Your task to perform on an android device: turn off location Image 0: 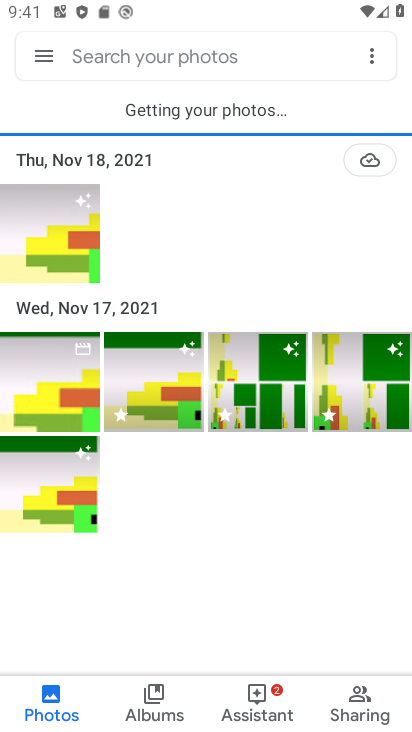
Step 0: press home button
Your task to perform on an android device: turn off location Image 1: 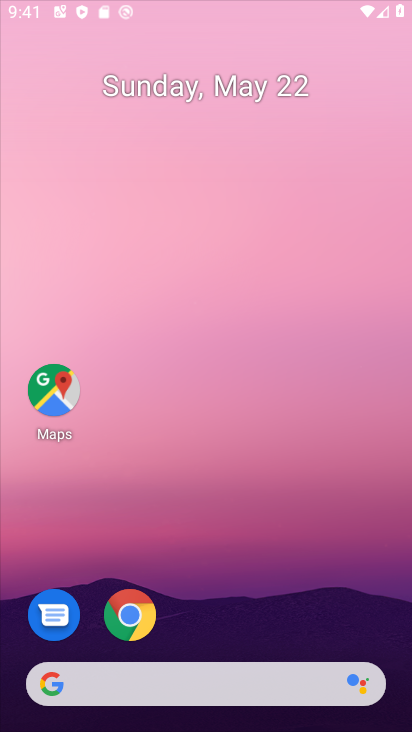
Step 1: drag from (260, 383) to (268, 50)
Your task to perform on an android device: turn off location Image 2: 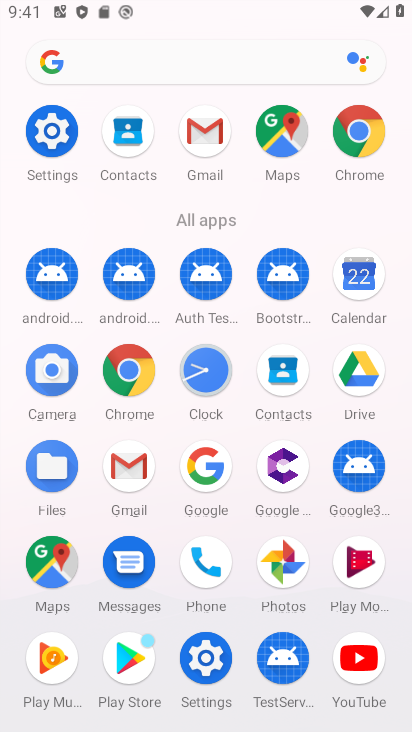
Step 2: click (54, 133)
Your task to perform on an android device: turn off location Image 3: 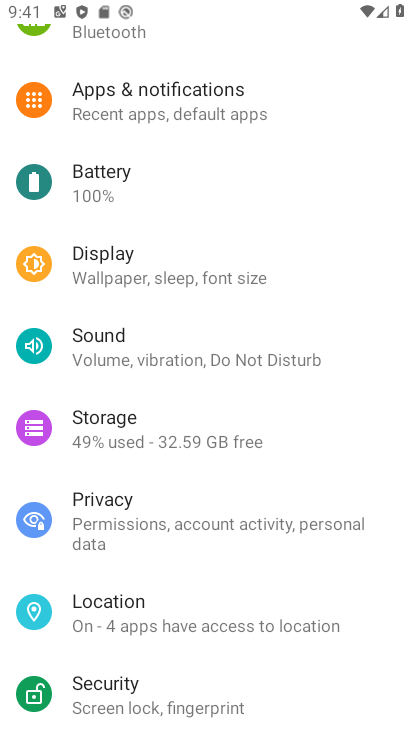
Step 3: drag from (144, 127) to (174, 478)
Your task to perform on an android device: turn off location Image 4: 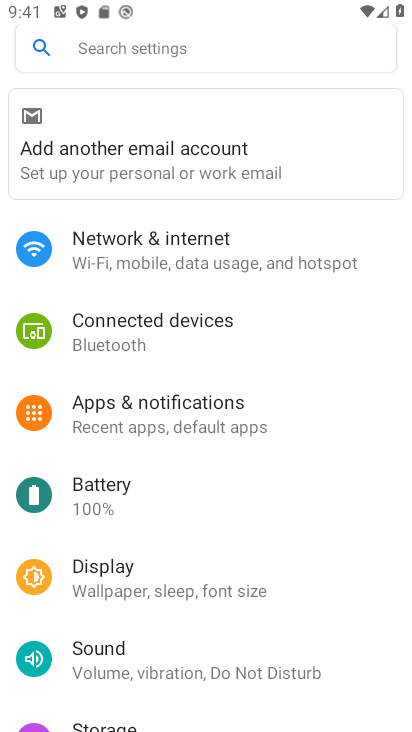
Step 4: drag from (182, 467) to (210, 222)
Your task to perform on an android device: turn off location Image 5: 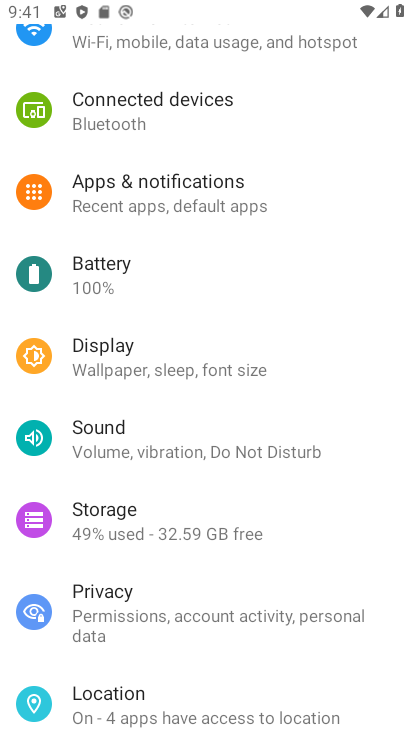
Step 5: drag from (144, 662) to (184, 402)
Your task to perform on an android device: turn off location Image 6: 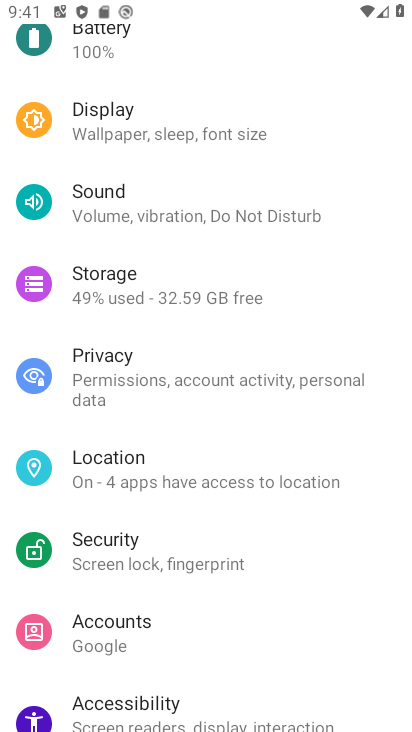
Step 6: click (151, 463)
Your task to perform on an android device: turn off location Image 7: 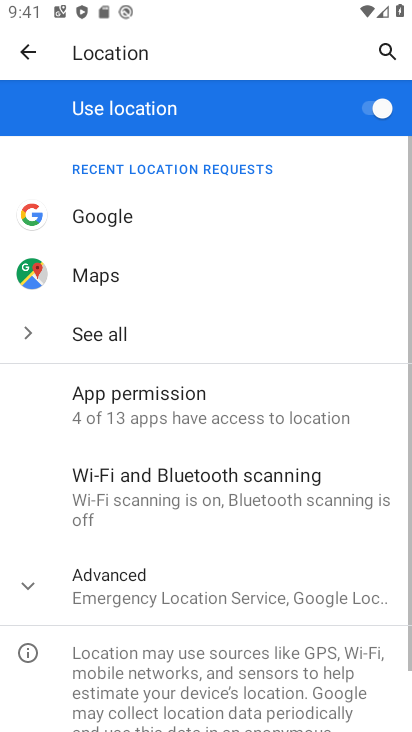
Step 7: click (360, 104)
Your task to perform on an android device: turn off location Image 8: 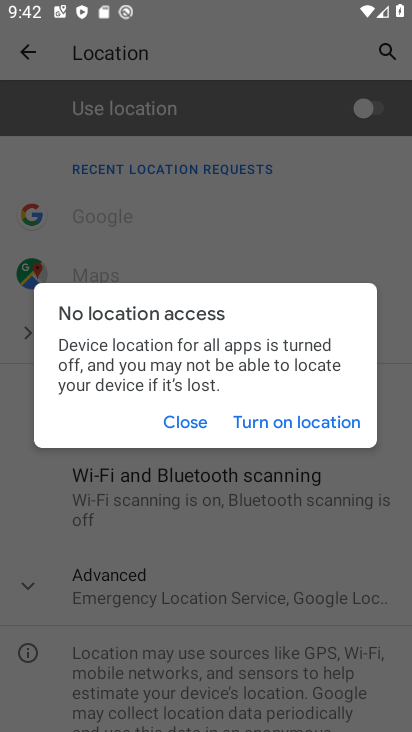
Step 8: task complete